Your task to perform on an android device: Show me popular videos on Youtube Image 0: 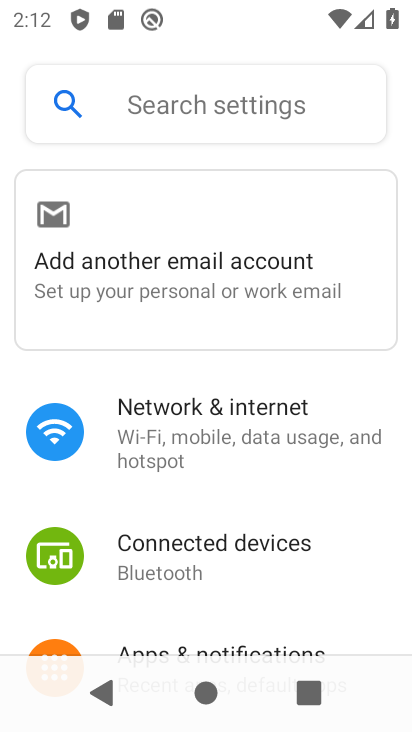
Step 0: press home button
Your task to perform on an android device: Show me popular videos on Youtube Image 1: 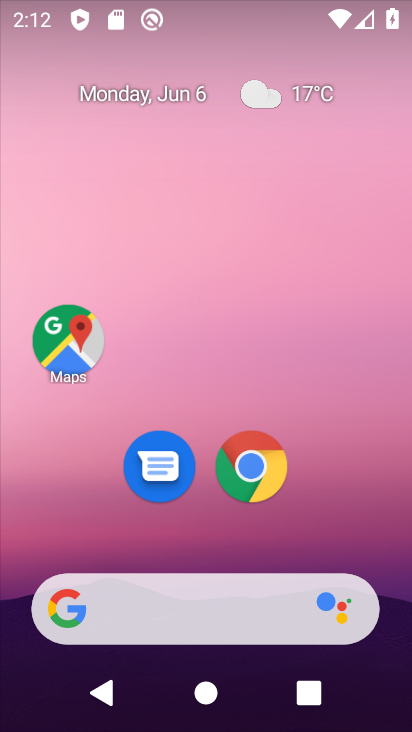
Step 1: drag from (398, 568) to (305, 213)
Your task to perform on an android device: Show me popular videos on Youtube Image 2: 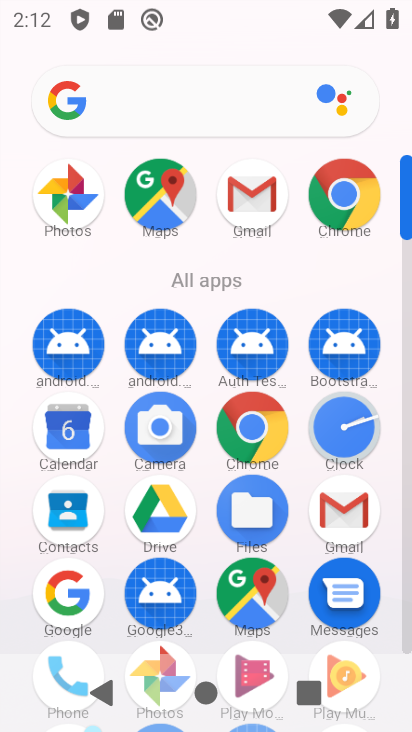
Step 2: click (407, 647)
Your task to perform on an android device: Show me popular videos on Youtube Image 3: 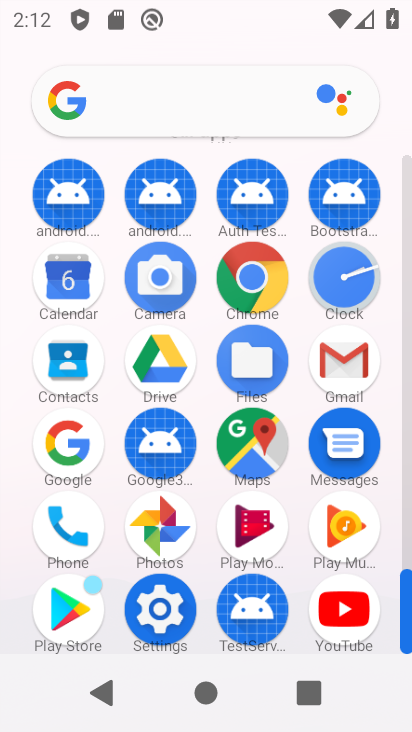
Step 3: click (364, 610)
Your task to perform on an android device: Show me popular videos on Youtube Image 4: 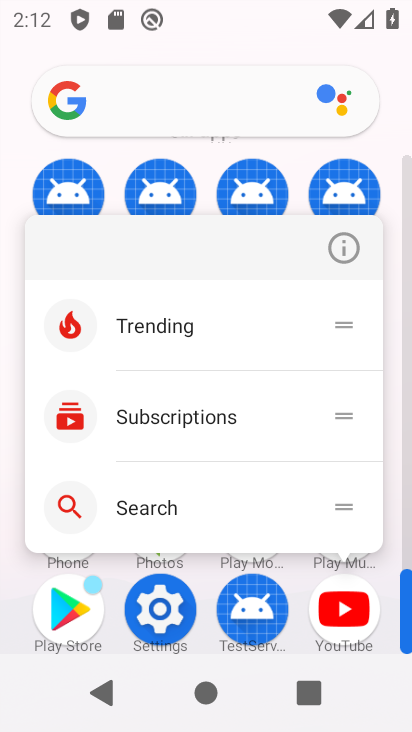
Step 4: click (364, 610)
Your task to perform on an android device: Show me popular videos on Youtube Image 5: 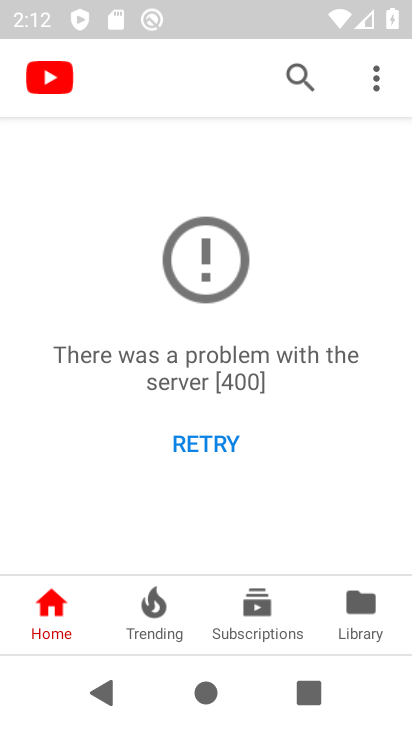
Step 5: click (162, 601)
Your task to perform on an android device: Show me popular videos on Youtube Image 6: 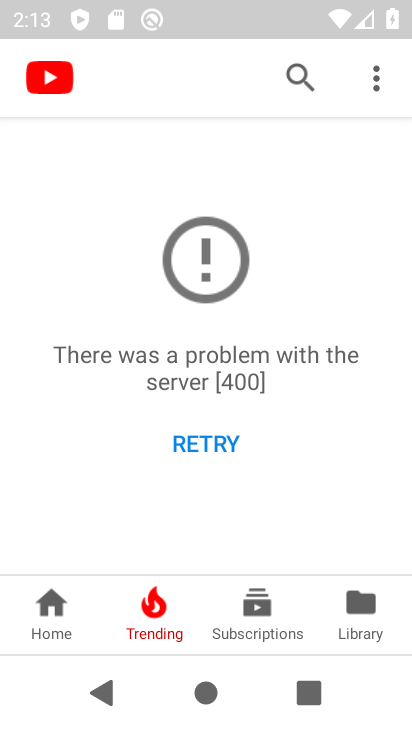
Step 6: task complete